Your task to perform on an android device: allow cookies in the chrome app Image 0: 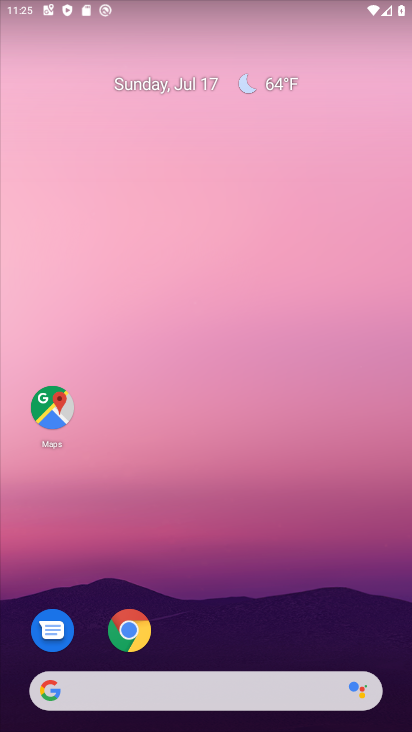
Step 0: click (131, 626)
Your task to perform on an android device: allow cookies in the chrome app Image 1: 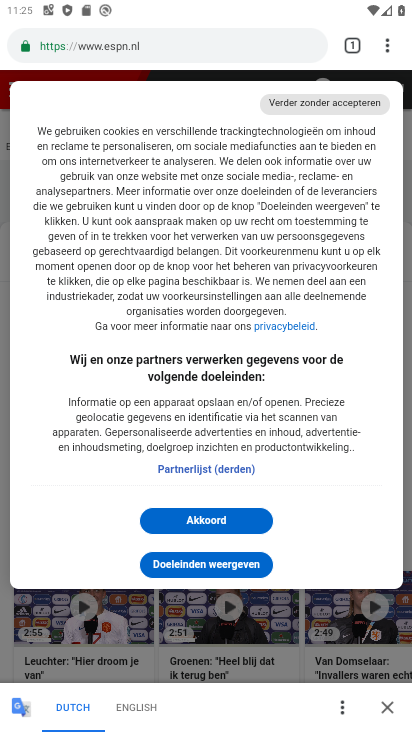
Step 1: click (387, 50)
Your task to perform on an android device: allow cookies in the chrome app Image 2: 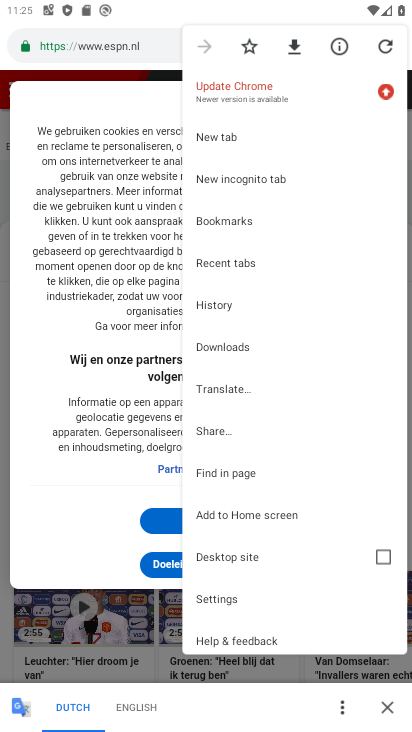
Step 2: click (220, 603)
Your task to perform on an android device: allow cookies in the chrome app Image 3: 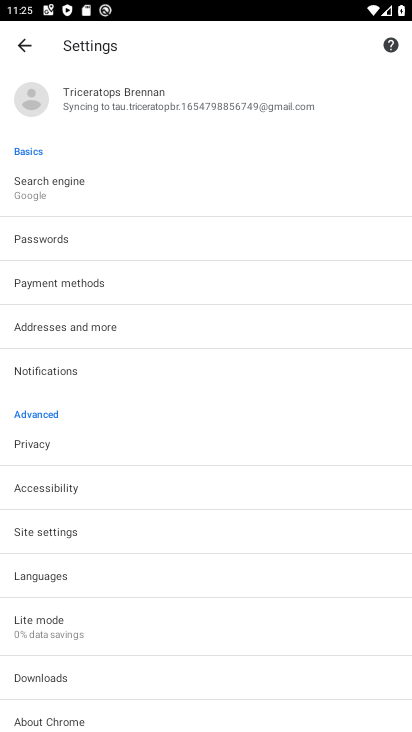
Step 3: click (52, 534)
Your task to perform on an android device: allow cookies in the chrome app Image 4: 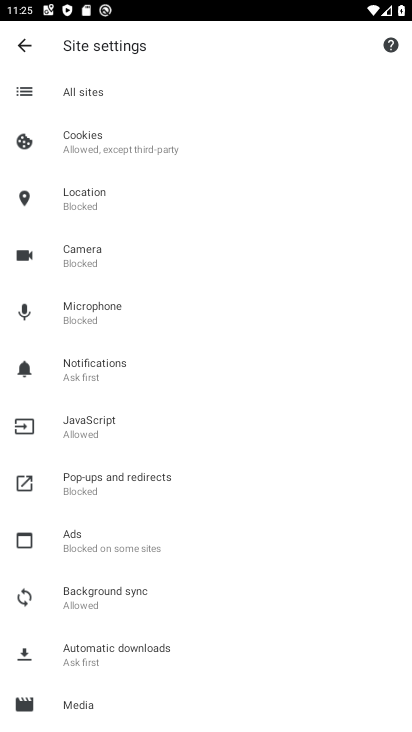
Step 4: click (89, 136)
Your task to perform on an android device: allow cookies in the chrome app Image 5: 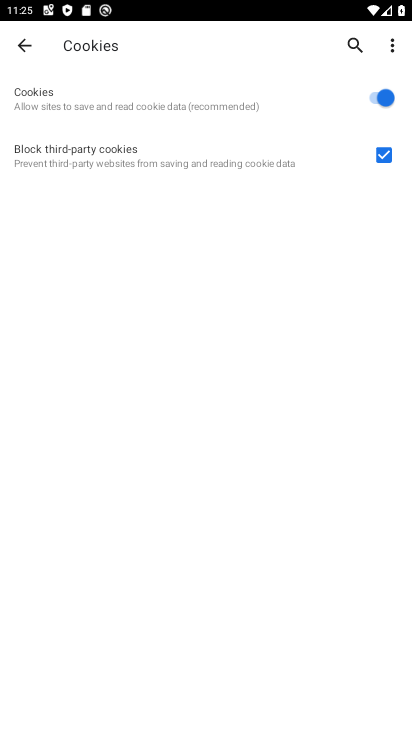
Step 5: task complete